Your task to perform on an android device: open a bookmark in the chrome app Image 0: 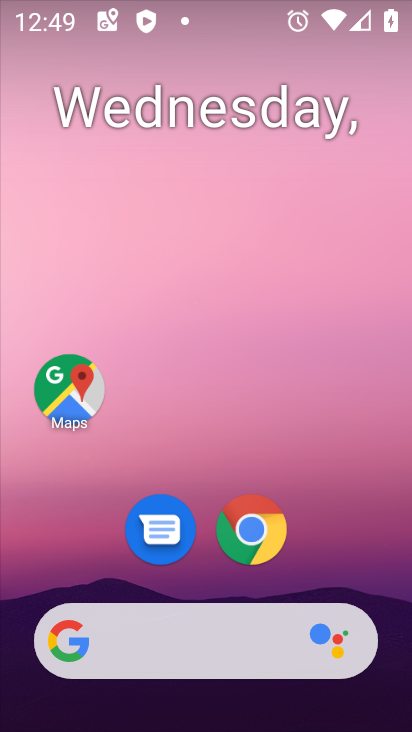
Step 0: click (248, 529)
Your task to perform on an android device: open a bookmark in the chrome app Image 1: 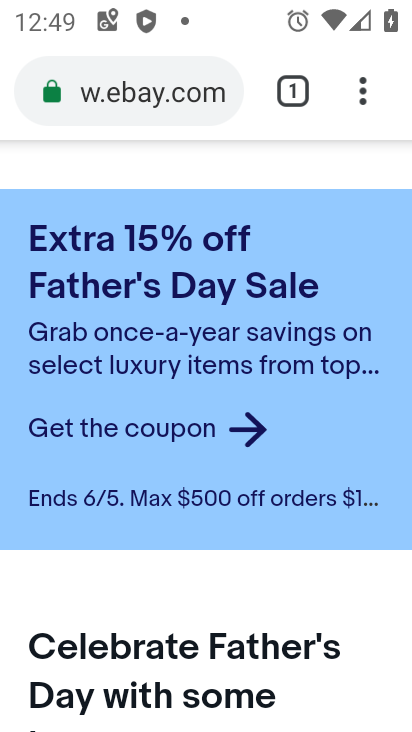
Step 1: click (365, 98)
Your task to perform on an android device: open a bookmark in the chrome app Image 2: 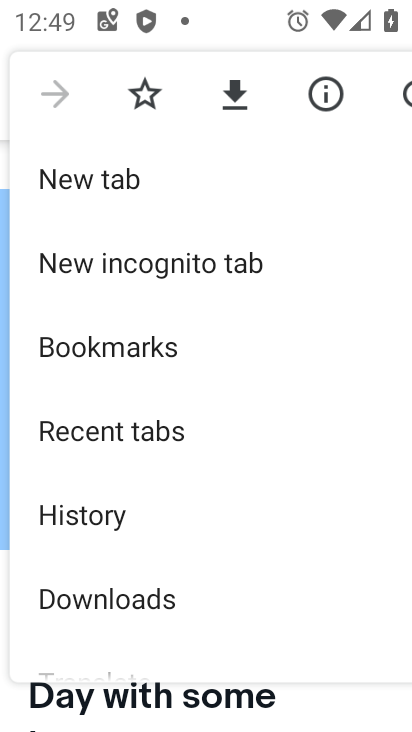
Step 2: click (113, 356)
Your task to perform on an android device: open a bookmark in the chrome app Image 3: 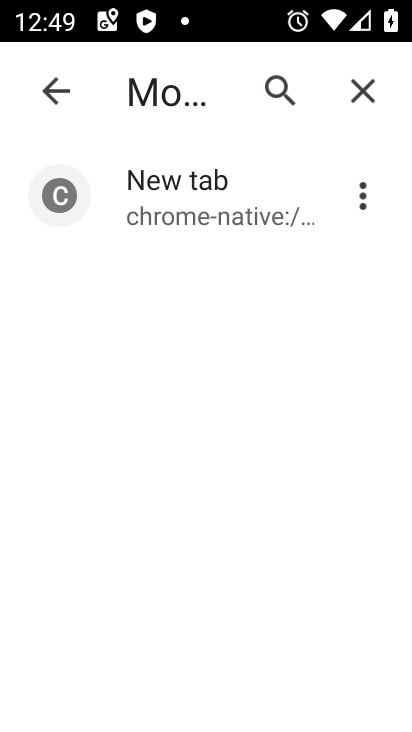
Step 3: task complete